Your task to perform on an android device: Go to Maps Image 0: 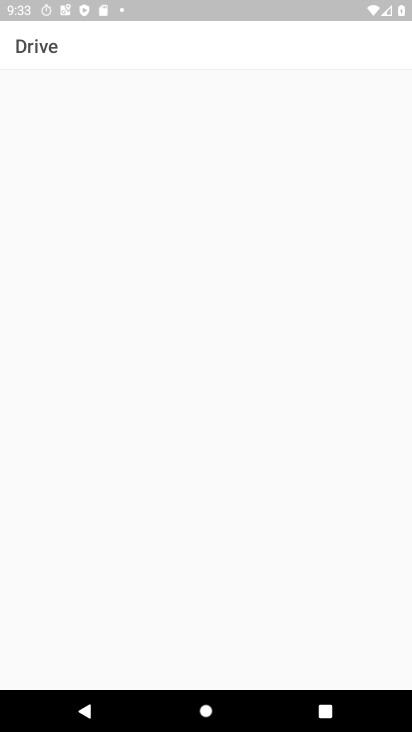
Step 0: press home button
Your task to perform on an android device: Go to Maps Image 1: 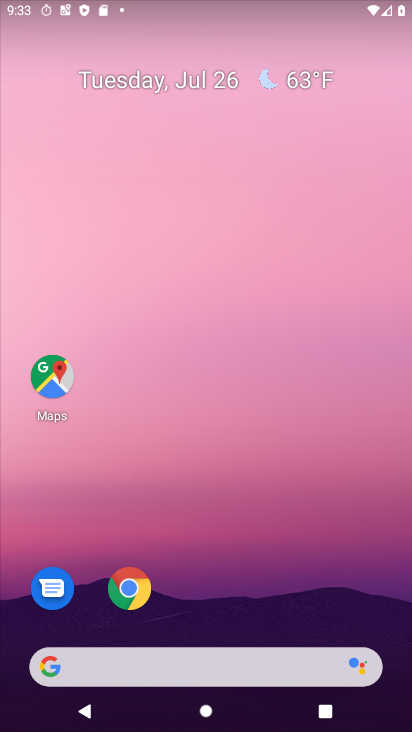
Step 1: click (42, 390)
Your task to perform on an android device: Go to Maps Image 2: 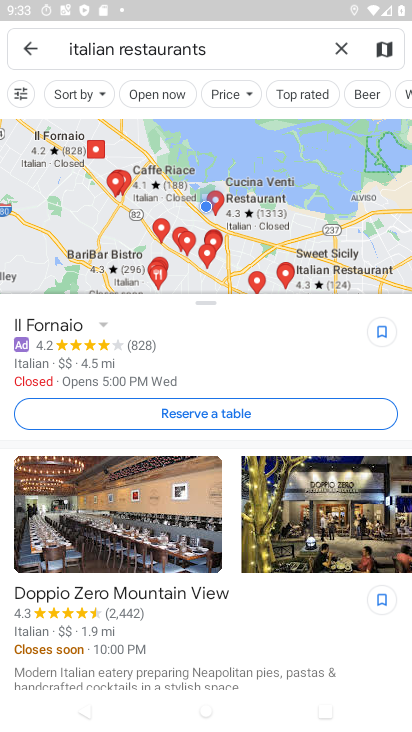
Step 2: task complete